Your task to perform on an android device: Go to display settings Image 0: 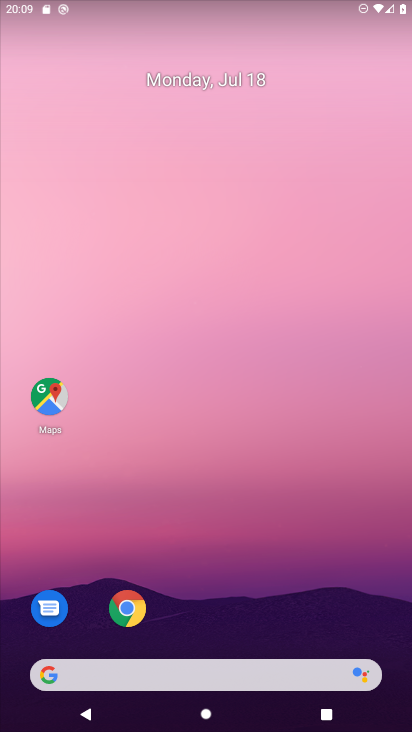
Step 0: drag from (230, 627) to (244, 26)
Your task to perform on an android device: Go to display settings Image 1: 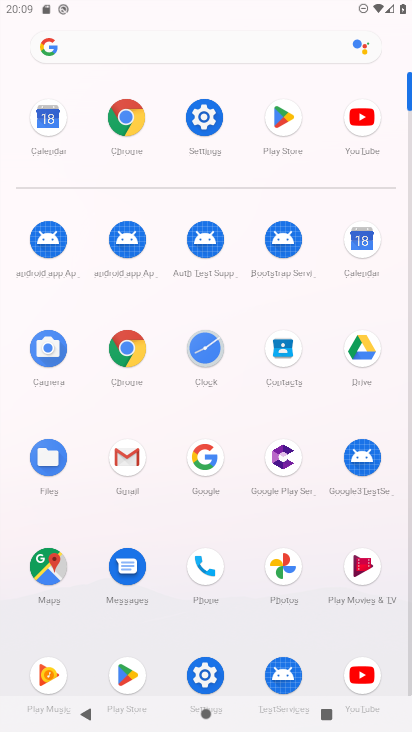
Step 1: click (204, 113)
Your task to perform on an android device: Go to display settings Image 2: 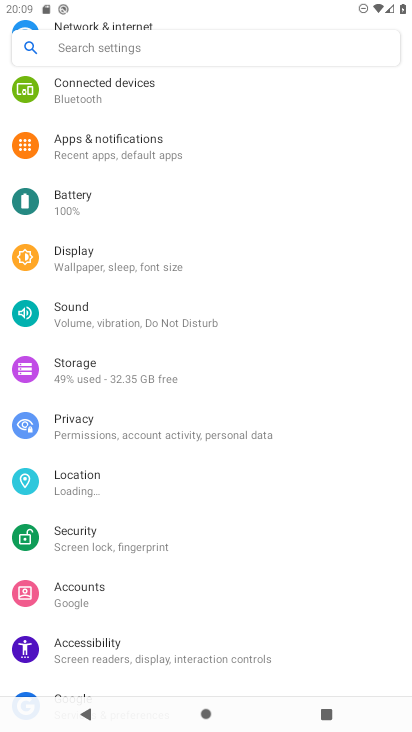
Step 2: click (187, 560)
Your task to perform on an android device: Go to display settings Image 3: 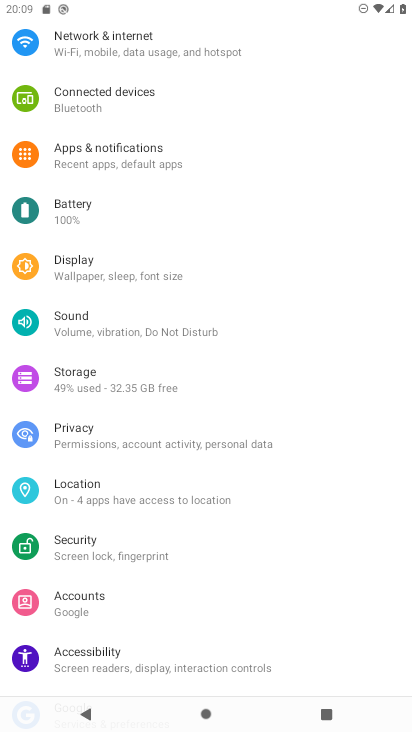
Step 3: click (134, 265)
Your task to perform on an android device: Go to display settings Image 4: 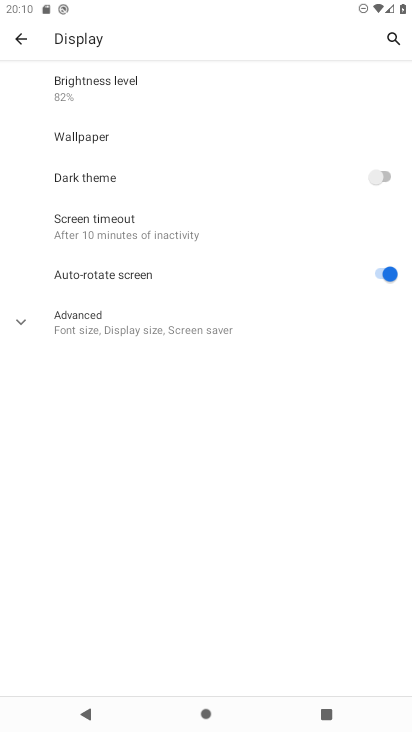
Step 4: task complete